Your task to perform on an android device: turn on javascript in the chrome app Image 0: 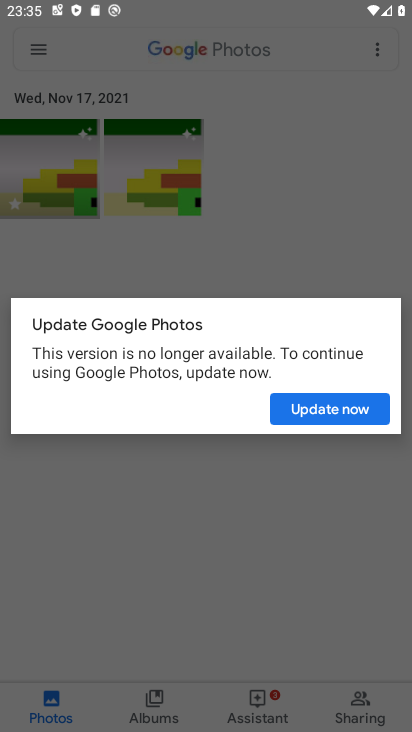
Step 0: press home button
Your task to perform on an android device: turn on javascript in the chrome app Image 1: 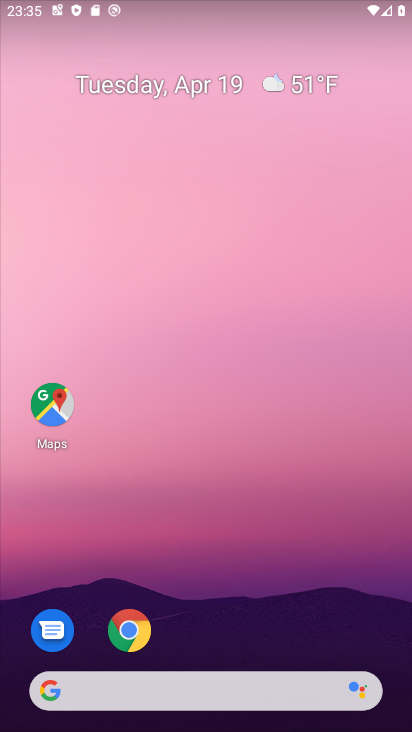
Step 1: drag from (314, 642) to (298, 234)
Your task to perform on an android device: turn on javascript in the chrome app Image 2: 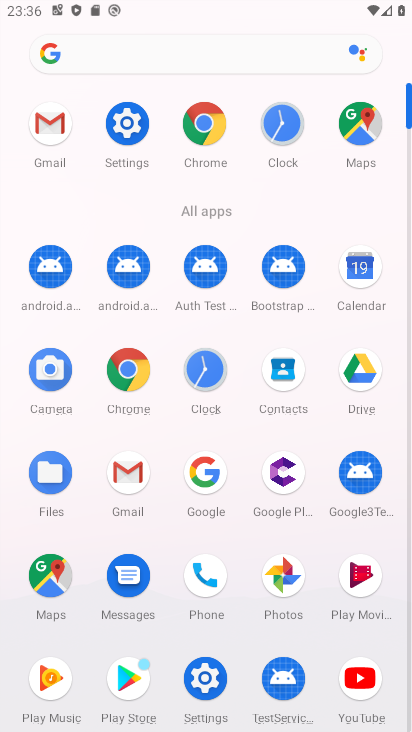
Step 2: click (146, 380)
Your task to perform on an android device: turn on javascript in the chrome app Image 3: 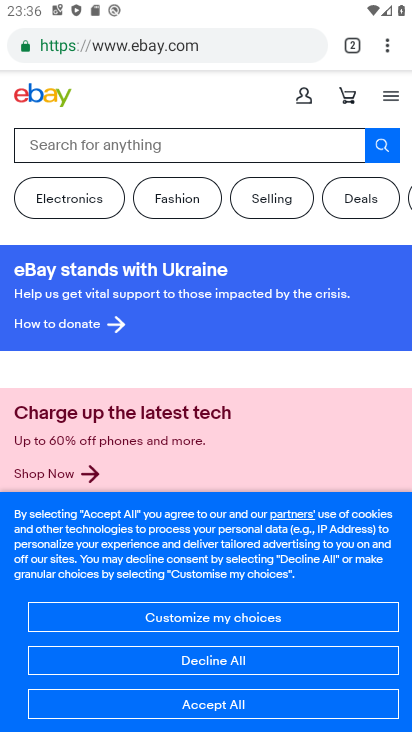
Step 3: click (387, 61)
Your task to perform on an android device: turn on javascript in the chrome app Image 4: 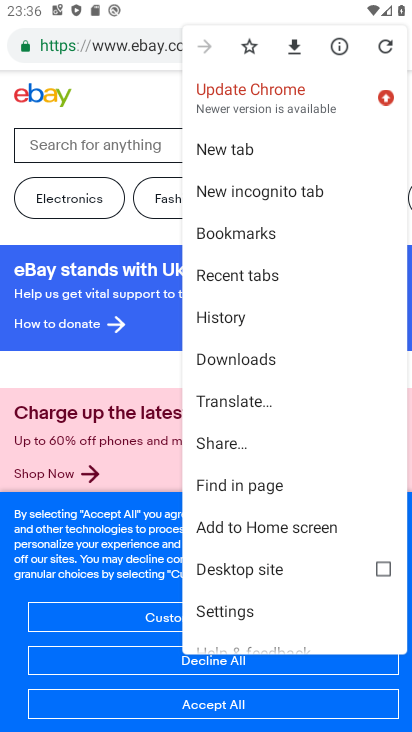
Step 4: click (292, 606)
Your task to perform on an android device: turn on javascript in the chrome app Image 5: 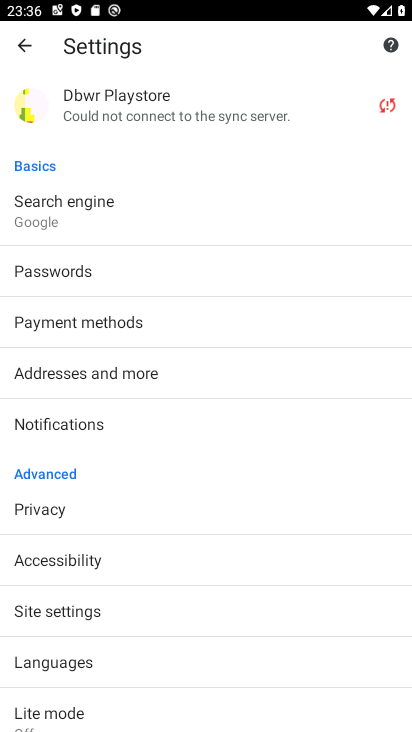
Step 5: click (229, 622)
Your task to perform on an android device: turn on javascript in the chrome app Image 6: 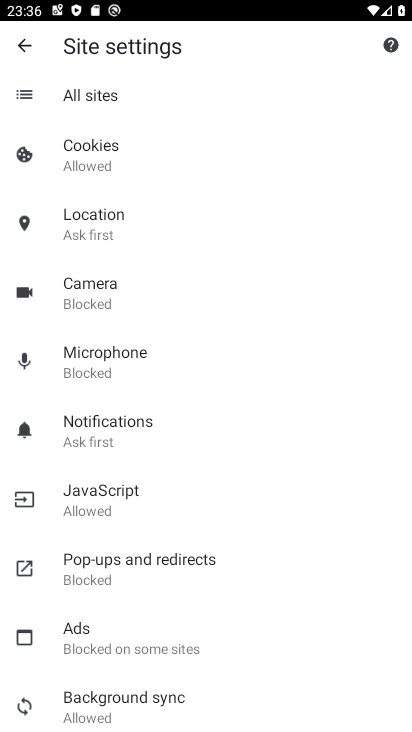
Step 6: click (205, 489)
Your task to perform on an android device: turn on javascript in the chrome app Image 7: 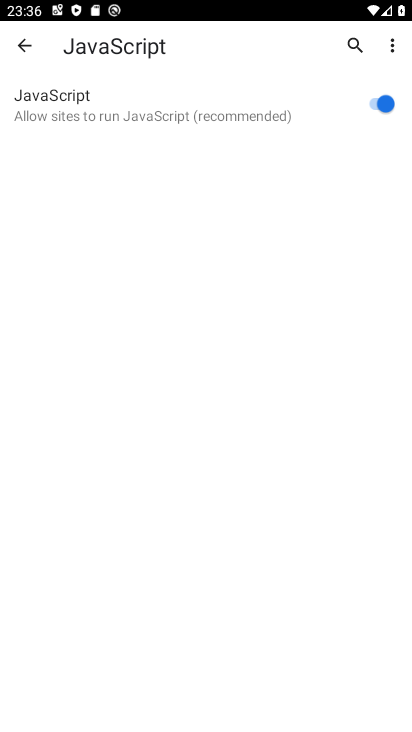
Step 7: task complete